Your task to perform on an android device: Go to CNN.com Image 0: 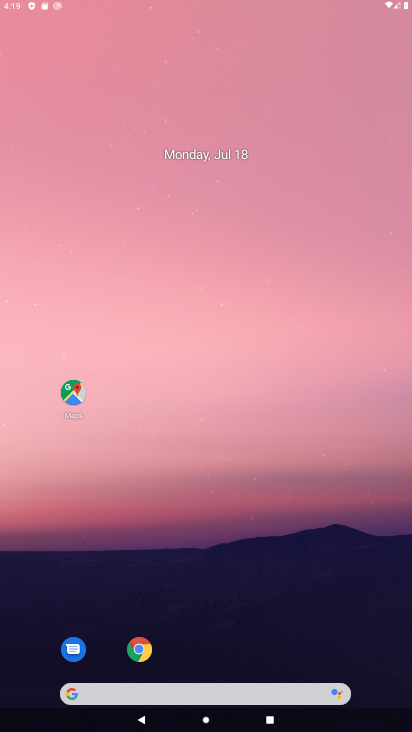
Step 0: click (142, 651)
Your task to perform on an android device: Go to CNN.com Image 1: 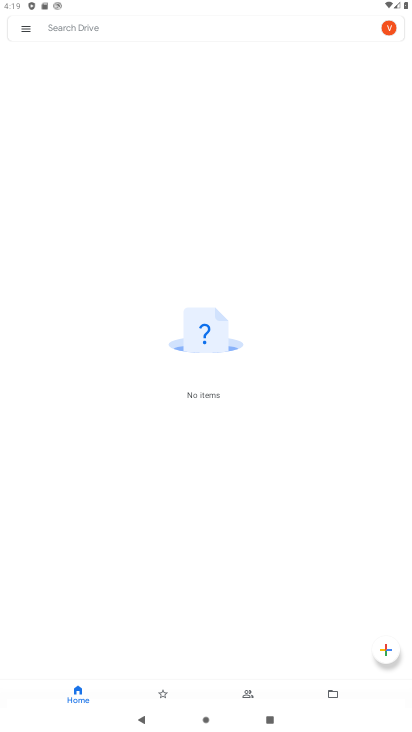
Step 1: press home button
Your task to perform on an android device: Go to CNN.com Image 2: 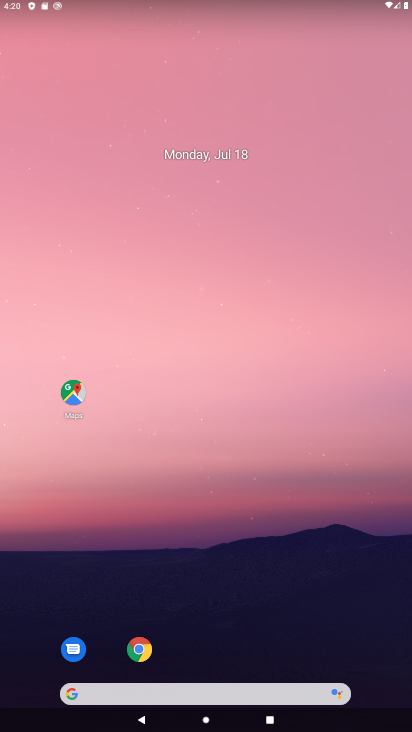
Step 2: click (138, 655)
Your task to perform on an android device: Go to CNN.com Image 3: 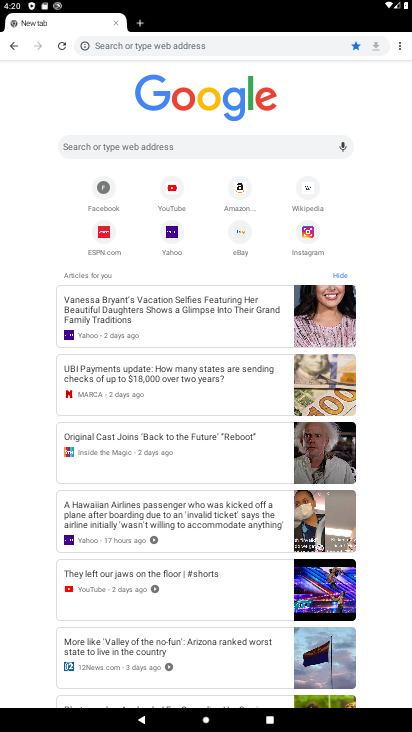
Step 3: click (182, 42)
Your task to perform on an android device: Go to CNN.com Image 4: 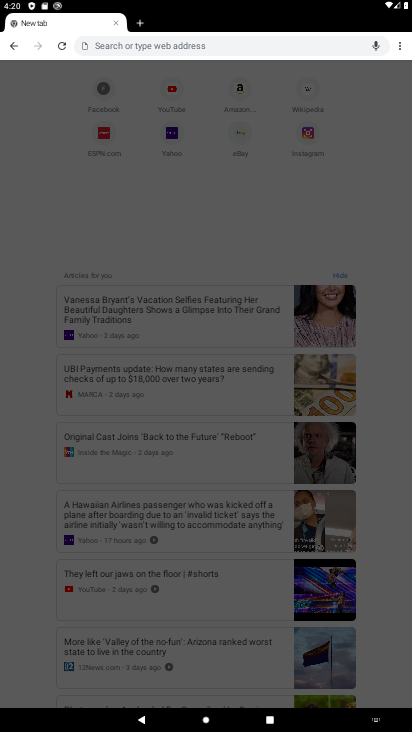
Step 4: type "CNN.com"
Your task to perform on an android device: Go to CNN.com Image 5: 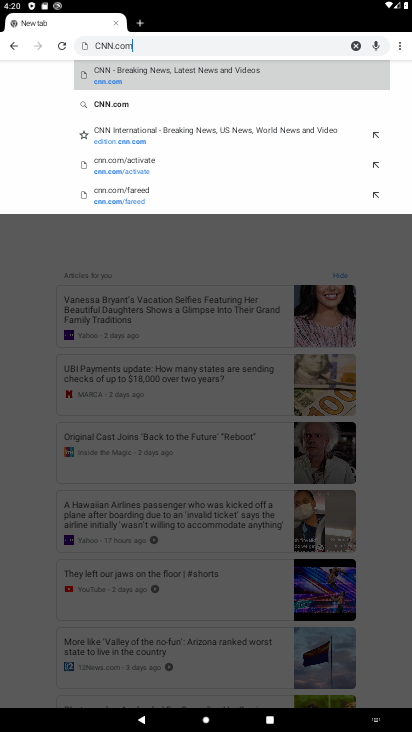
Step 5: click (137, 77)
Your task to perform on an android device: Go to CNN.com Image 6: 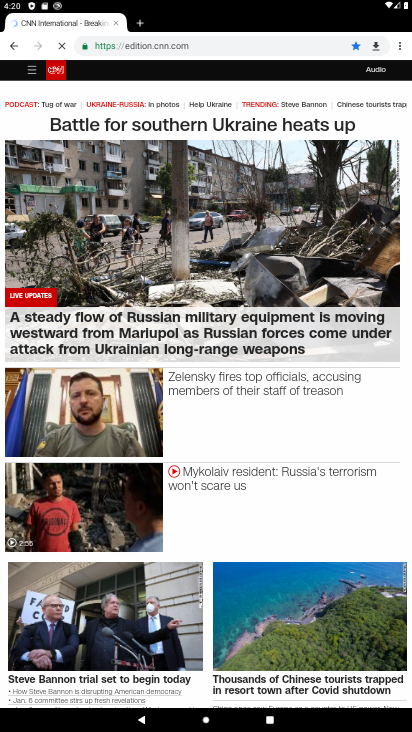
Step 6: task complete